Your task to perform on an android device: Open Google Maps and go to "Timeline" Image 0: 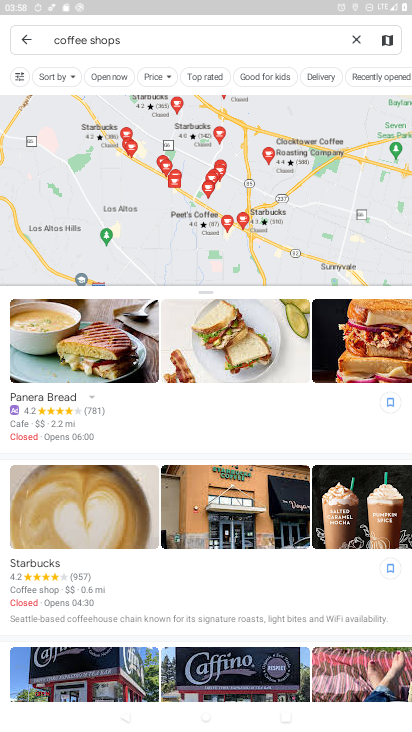
Step 0: press home button
Your task to perform on an android device: Open Google Maps and go to "Timeline" Image 1: 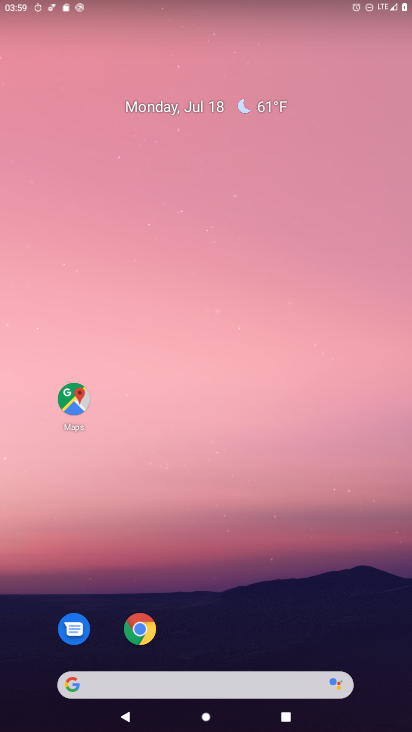
Step 1: click (75, 399)
Your task to perform on an android device: Open Google Maps and go to "Timeline" Image 2: 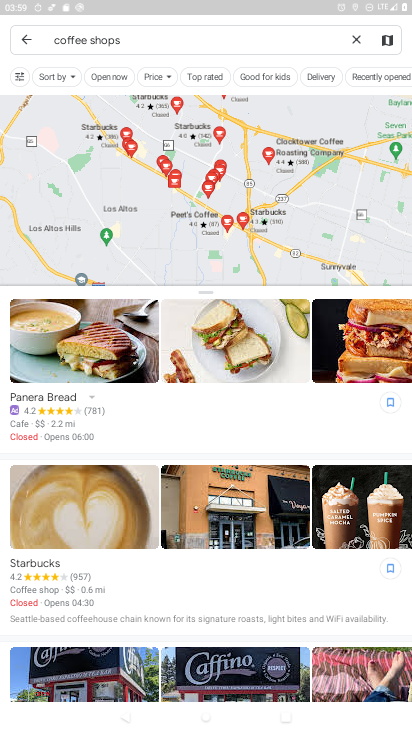
Step 2: press back button
Your task to perform on an android device: Open Google Maps and go to "Timeline" Image 3: 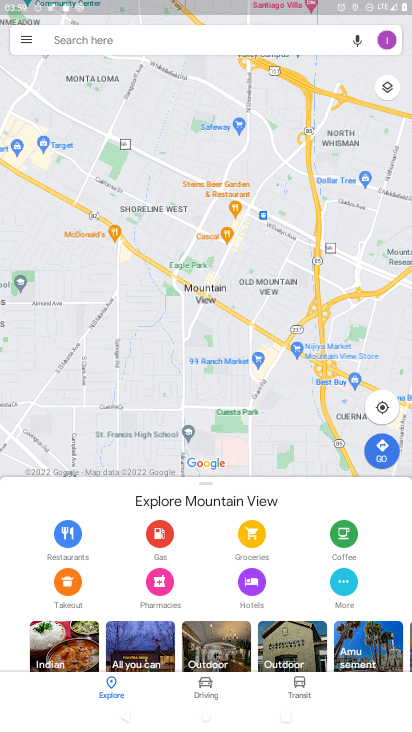
Step 3: click (26, 40)
Your task to perform on an android device: Open Google Maps and go to "Timeline" Image 4: 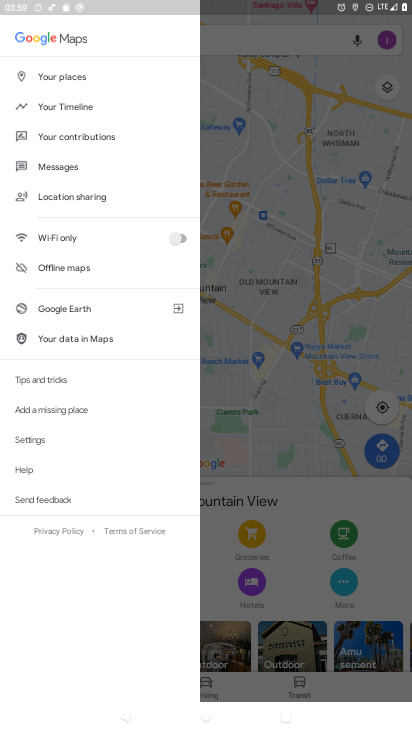
Step 4: click (66, 104)
Your task to perform on an android device: Open Google Maps and go to "Timeline" Image 5: 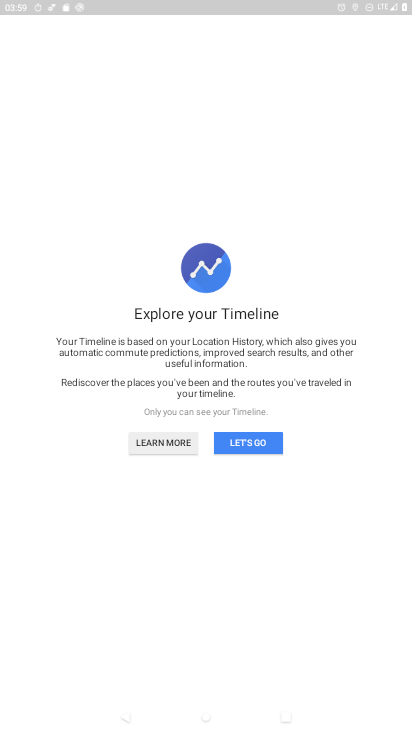
Step 5: click (237, 445)
Your task to perform on an android device: Open Google Maps and go to "Timeline" Image 6: 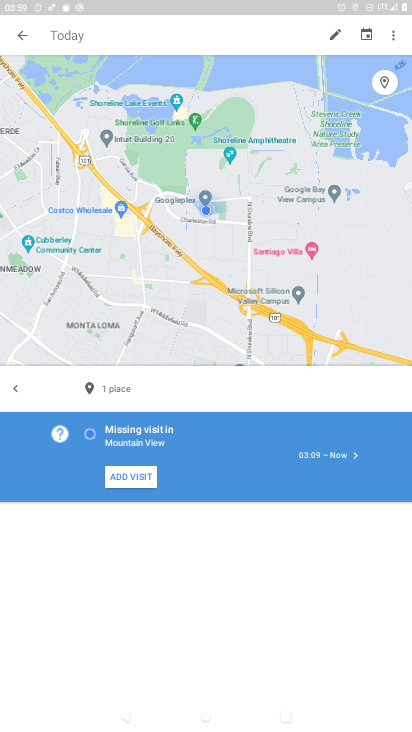
Step 6: task complete